Your task to perform on an android device: turn on sleep mode Image 0: 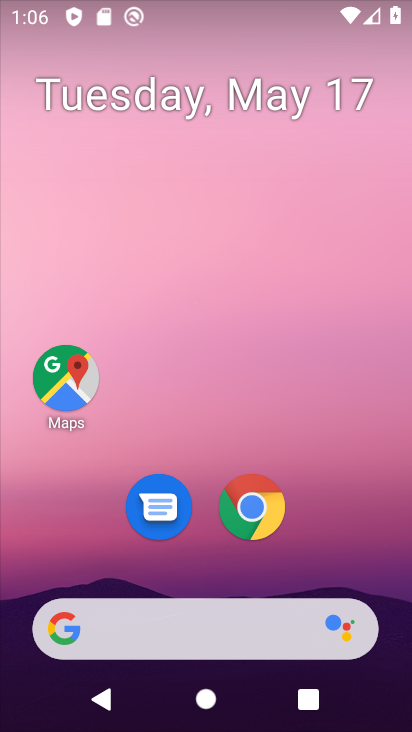
Step 0: drag from (301, 583) to (398, 180)
Your task to perform on an android device: turn on sleep mode Image 1: 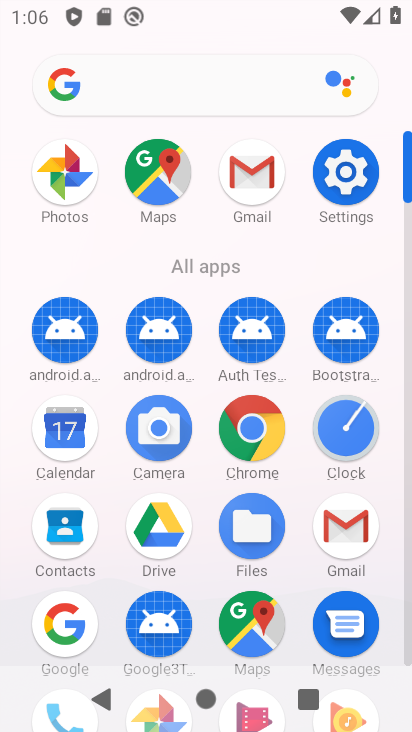
Step 1: click (345, 169)
Your task to perform on an android device: turn on sleep mode Image 2: 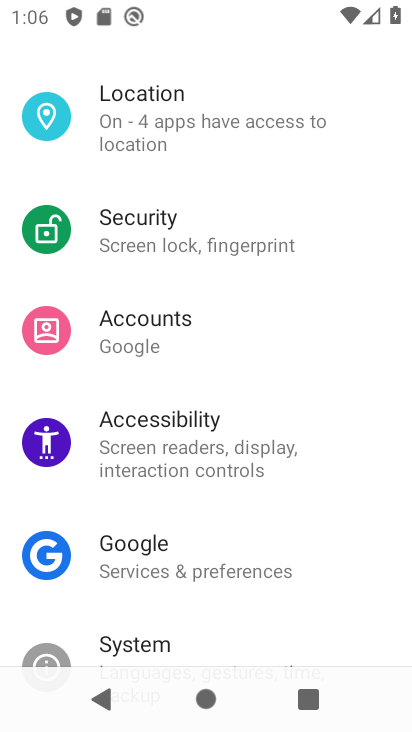
Step 2: task complete